Your task to perform on an android device: Is it going to rain this weekend? Image 0: 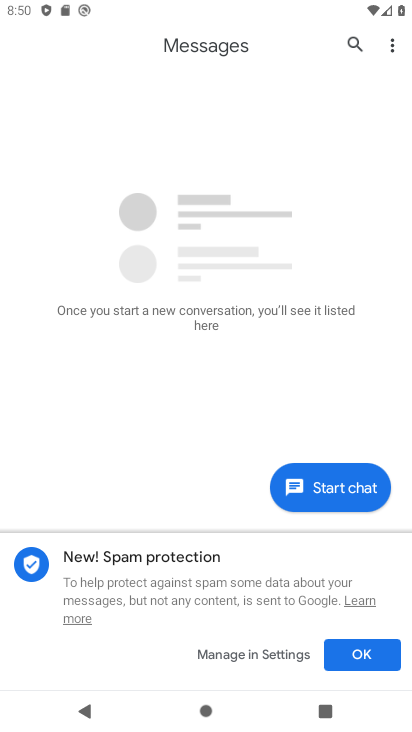
Step 0: press back button
Your task to perform on an android device: Is it going to rain this weekend? Image 1: 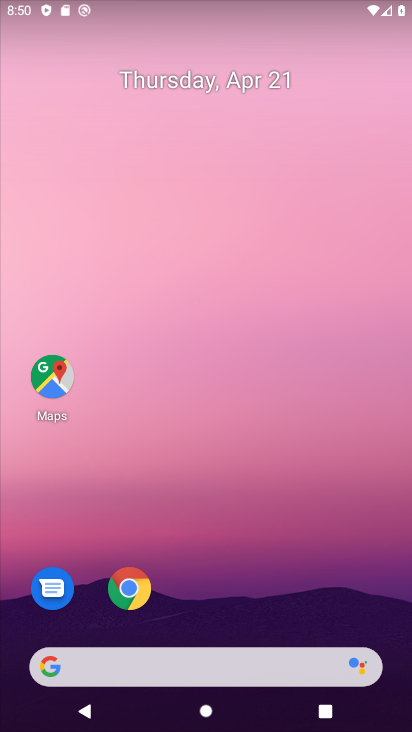
Step 1: drag from (301, 542) to (250, 2)
Your task to perform on an android device: Is it going to rain this weekend? Image 2: 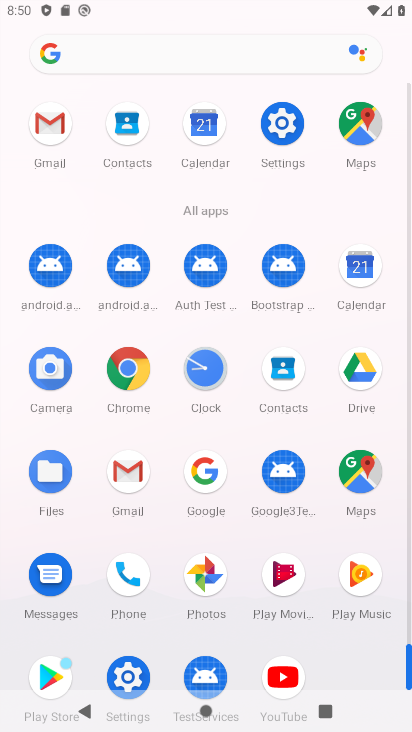
Step 2: drag from (7, 529) to (13, 325)
Your task to perform on an android device: Is it going to rain this weekend? Image 3: 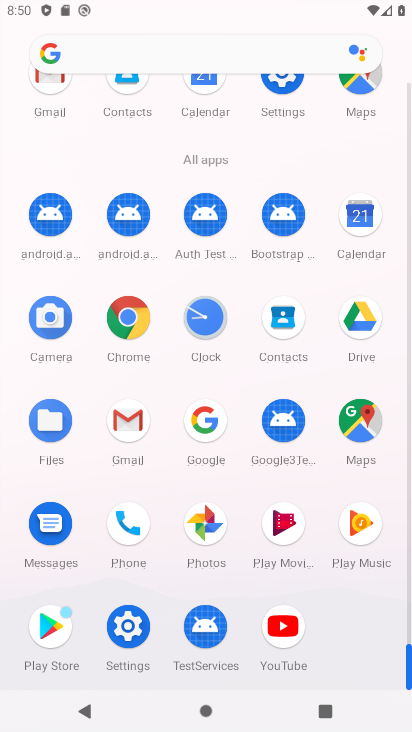
Step 3: click (105, 48)
Your task to perform on an android device: Is it going to rain this weekend? Image 4: 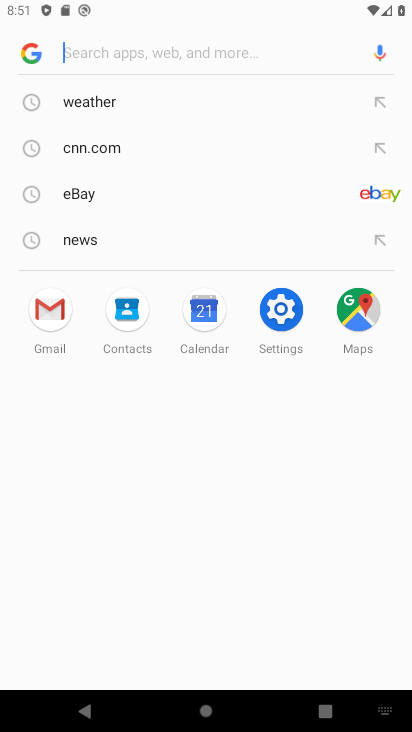
Step 4: type "Is it going to rain this weekend?"
Your task to perform on an android device: Is it going to rain this weekend? Image 5: 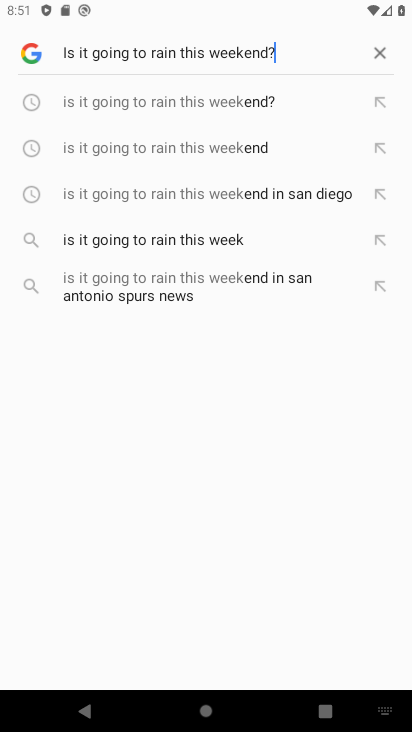
Step 5: type ""
Your task to perform on an android device: Is it going to rain this weekend? Image 6: 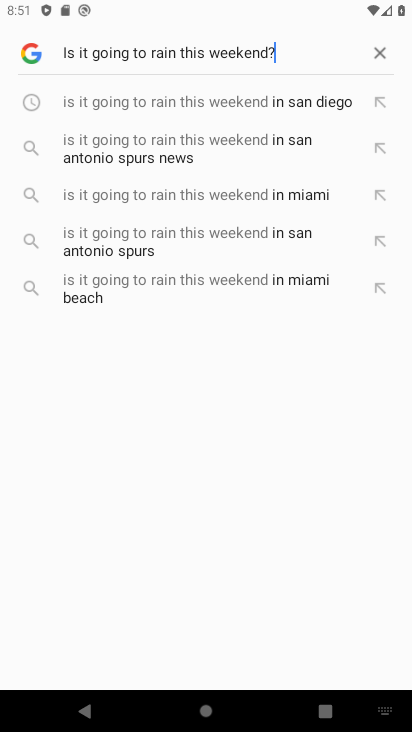
Step 6: click (174, 109)
Your task to perform on an android device: Is it going to rain this weekend? Image 7: 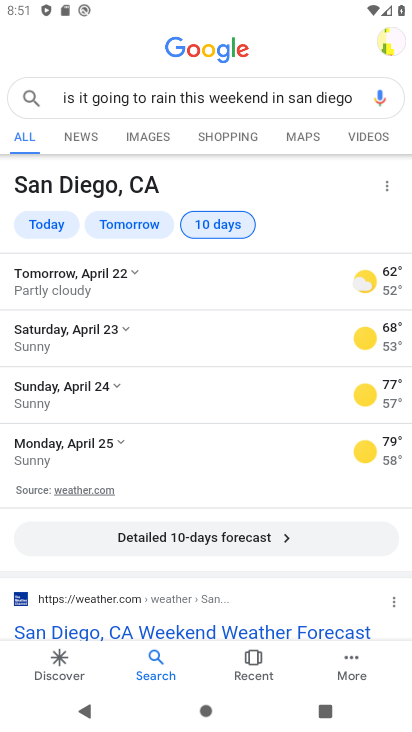
Step 7: task complete